Your task to perform on an android device: Open Reddit.com Image 0: 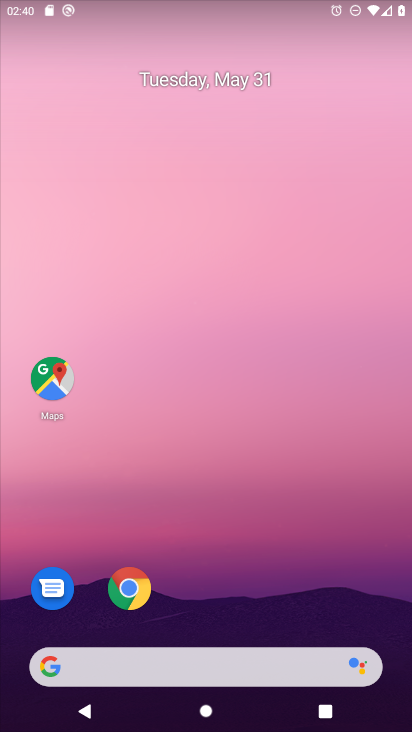
Step 0: drag from (241, 634) to (272, 7)
Your task to perform on an android device: Open Reddit.com Image 1: 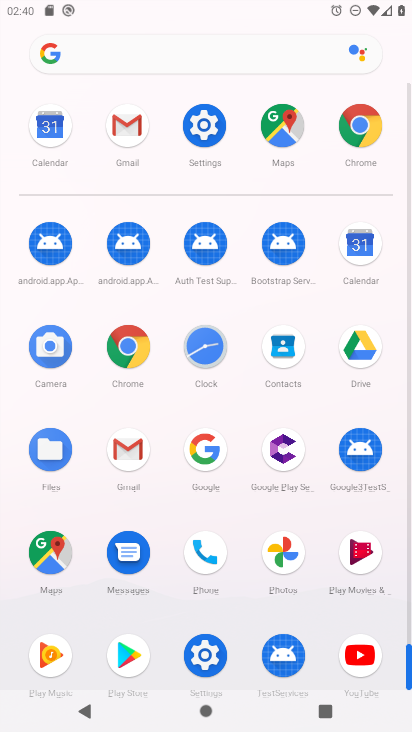
Step 1: click (133, 356)
Your task to perform on an android device: Open Reddit.com Image 2: 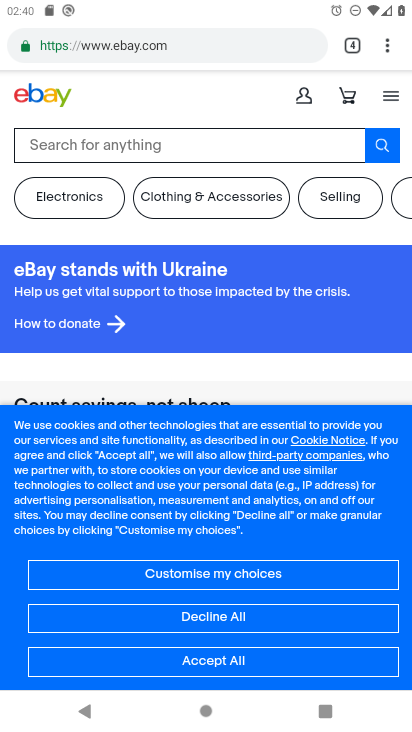
Step 2: click (258, 50)
Your task to perform on an android device: Open Reddit.com Image 3: 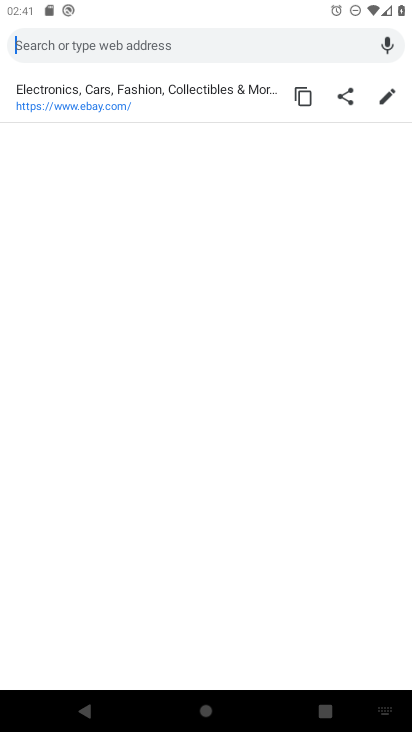
Step 3: type "reddit.com"
Your task to perform on an android device: Open Reddit.com Image 4: 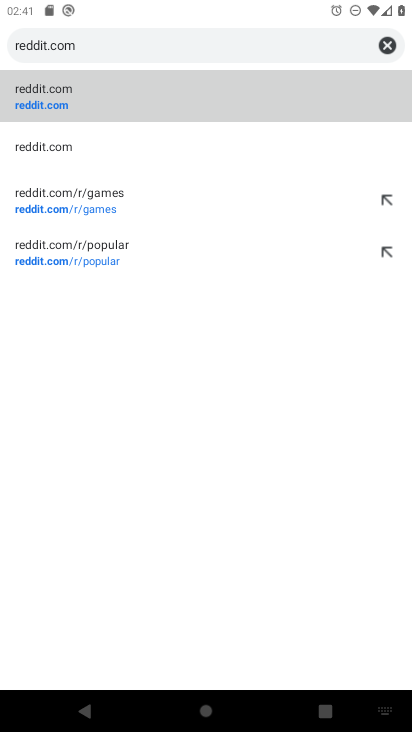
Step 4: click (52, 112)
Your task to perform on an android device: Open Reddit.com Image 5: 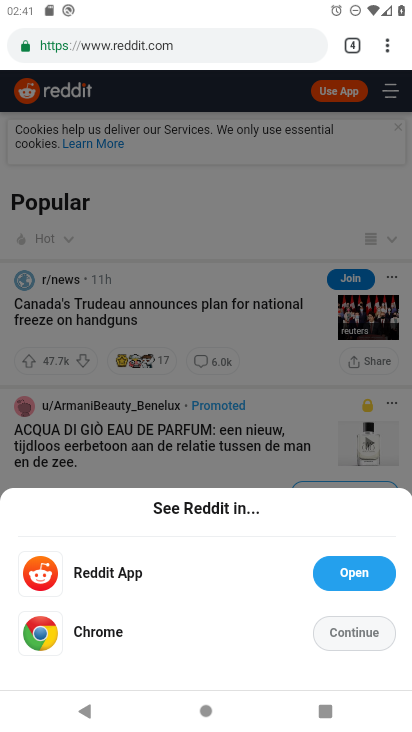
Step 5: task complete